Your task to perform on an android device: visit the assistant section in the google photos Image 0: 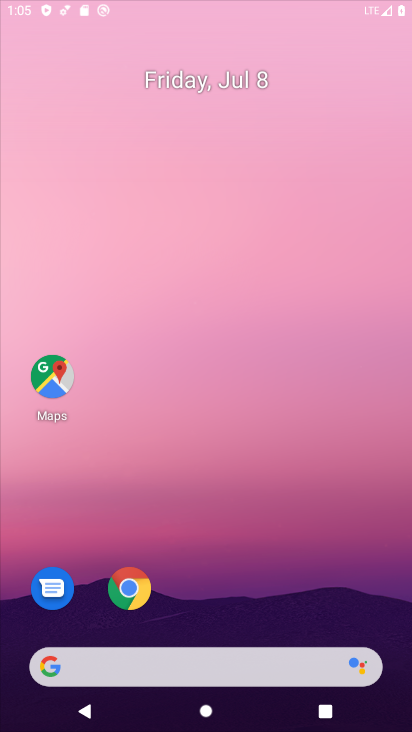
Step 0: click (411, 284)
Your task to perform on an android device: visit the assistant section in the google photos Image 1: 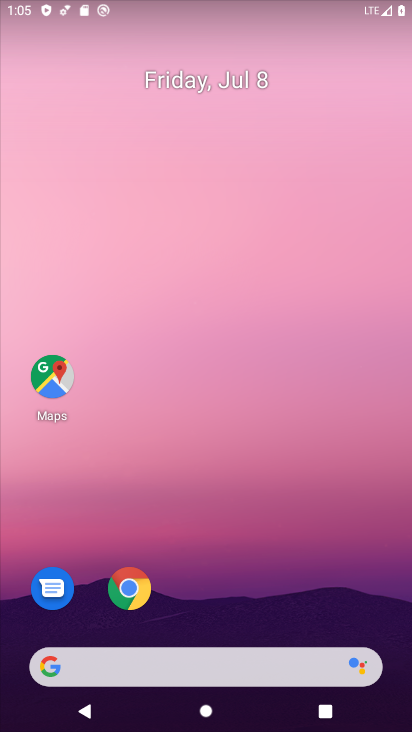
Step 1: drag from (206, 521) to (229, 67)
Your task to perform on an android device: visit the assistant section in the google photos Image 2: 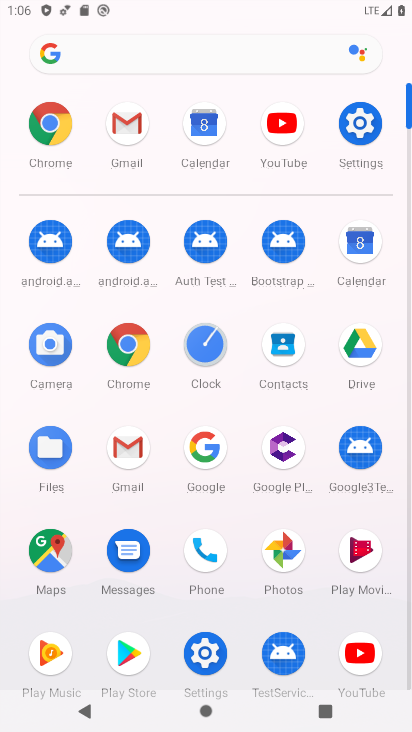
Step 2: click (291, 562)
Your task to perform on an android device: visit the assistant section in the google photos Image 3: 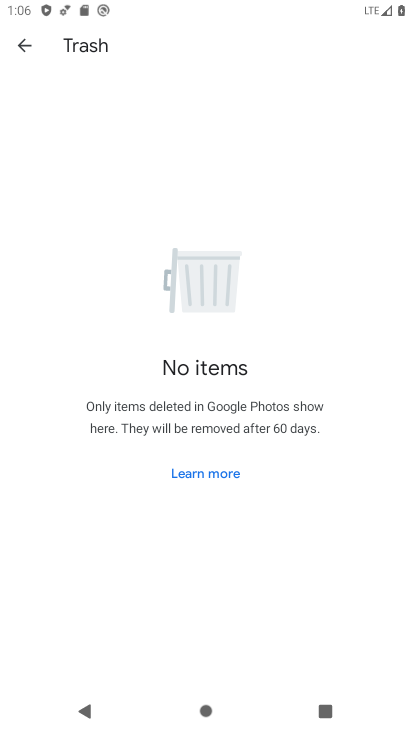
Step 3: click (17, 46)
Your task to perform on an android device: visit the assistant section in the google photos Image 4: 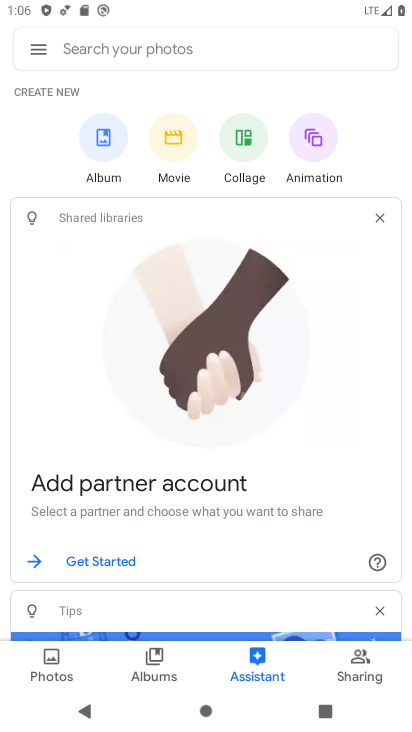
Step 4: task complete